Your task to perform on an android device: allow notifications from all sites in the chrome app Image 0: 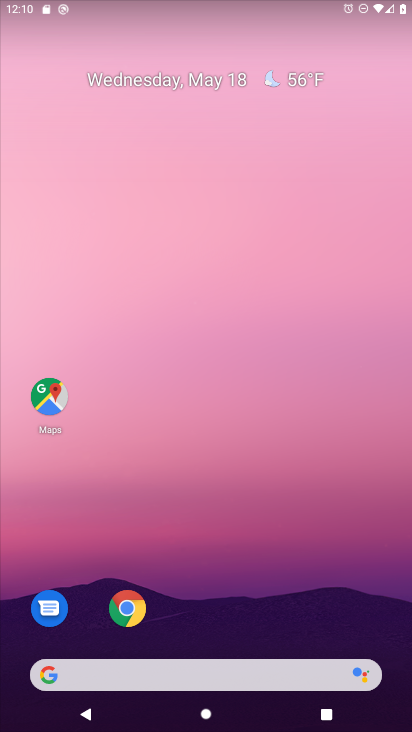
Step 0: drag from (242, 672) to (231, 257)
Your task to perform on an android device: allow notifications from all sites in the chrome app Image 1: 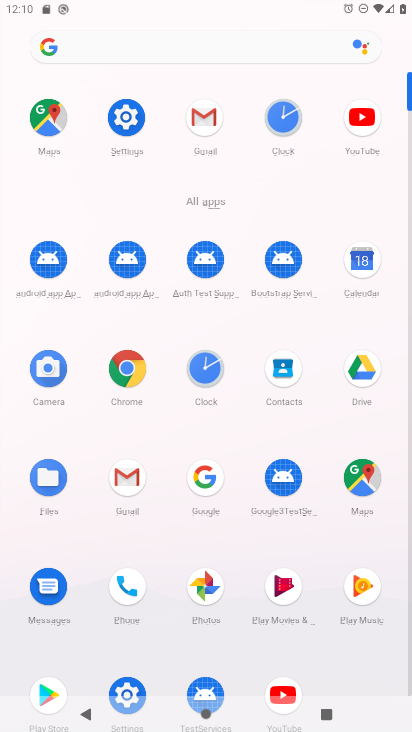
Step 1: click (123, 370)
Your task to perform on an android device: allow notifications from all sites in the chrome app Image 2: 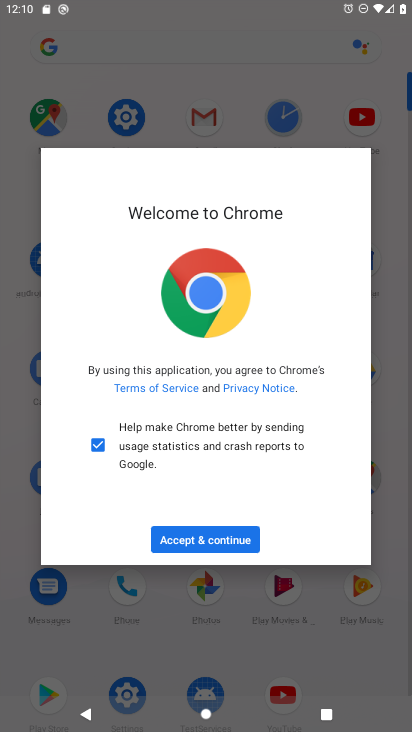
Step 2: click (193, 537)
Your task to perform on an android device: allow notifications from all sites in the chrome app Image 3: 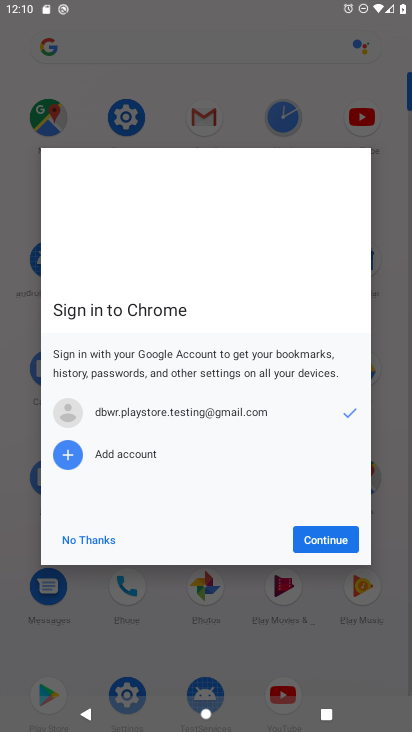
Step 3: click (317, 539)
Your task to perform on an android device: allow notifications from all sites in the chrome app Image 4: 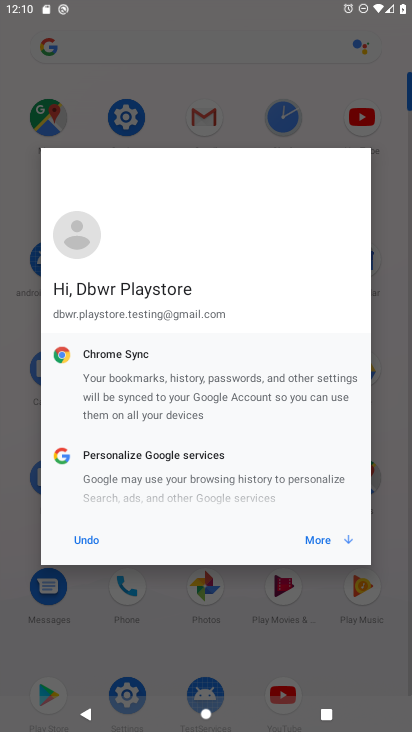
Step 4: click (332, 541)
Your task to perform on an android device: allow notifications from all sites in the chrome app Image 5: 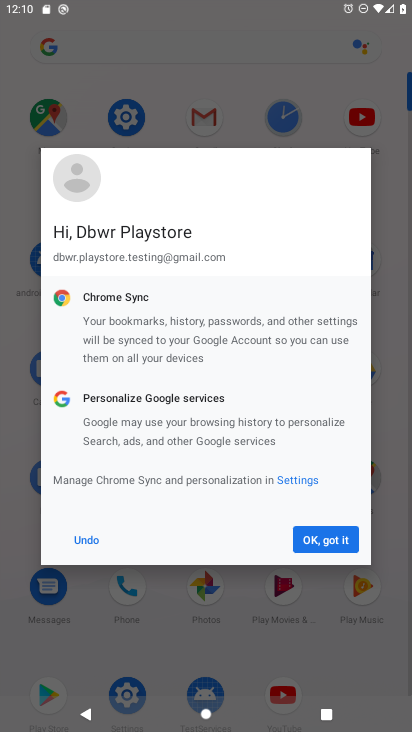
Step 5: click (330, 533)
Your task to perform on an android device: allow notifications from all sites in the chrome app Image 6: 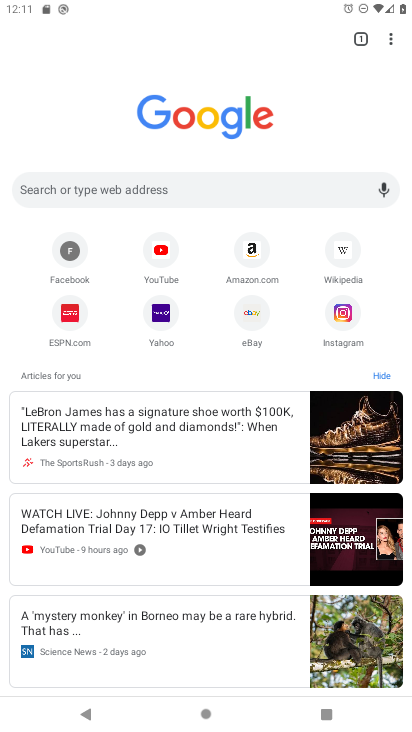
Step 6: click (388, 51)
Your task to perform on an android device: allow notifications from all sites in the chrome app Image 7: 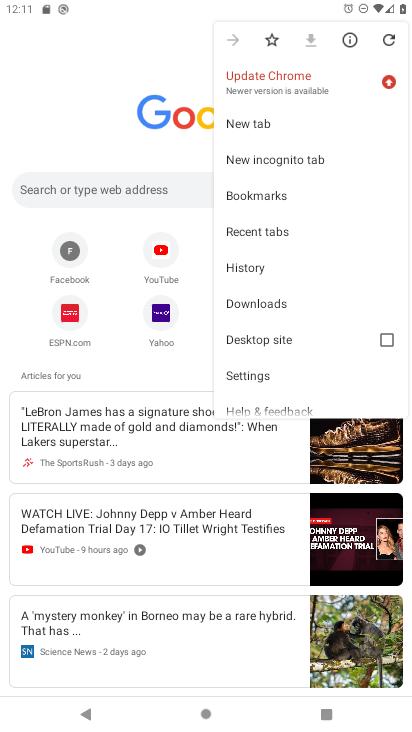
Step 7: click (252, 373)
Your task to perform on an android device: allow notifications from all sites in the chrome app Image 8: 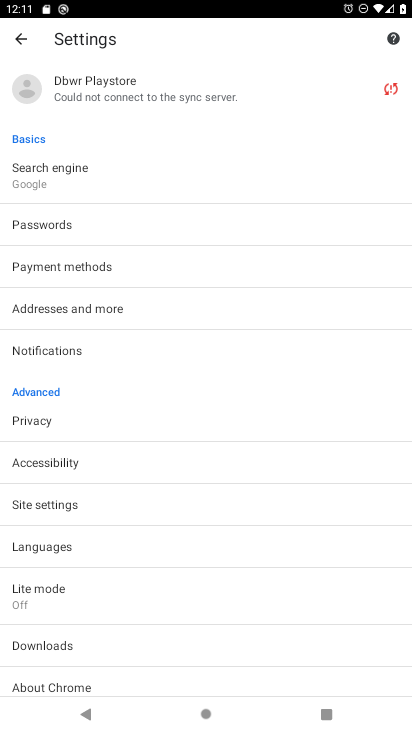
Step 8: click (56, 511)
Your task to perform on an android device: allow notifications from all sites in the chrome app Image 9: 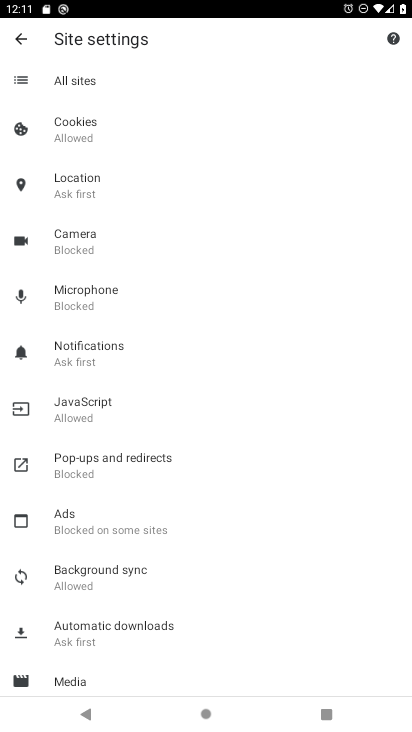
Step 9: click (62, 359)
Your task to perform on an android device: allow notifications from all sites in the chrome app Image 10: 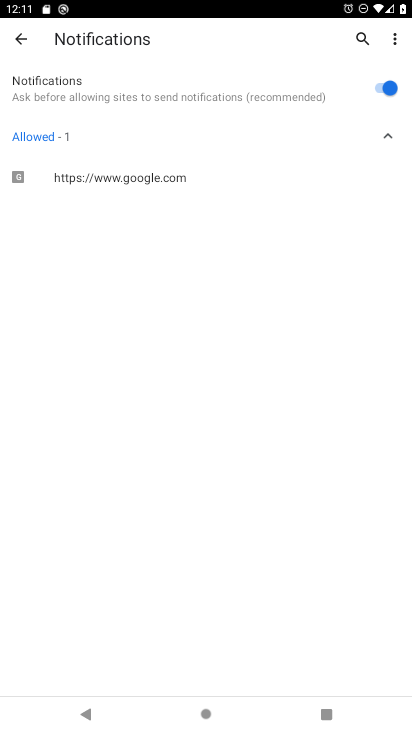
Step 10: click (383, 86)
Your task to perform on an android device: allow notifications from all sites in the chrome app Image 11: 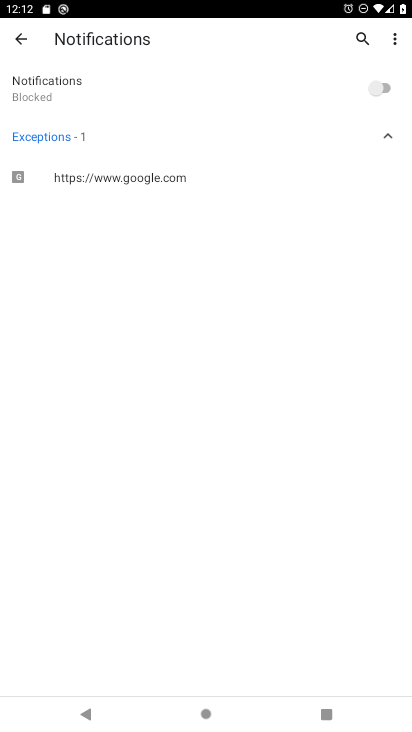
Step 11: click (383, 99)
Your task to perform on an android device: allow notifications from all sites in the chrome app Image 12: 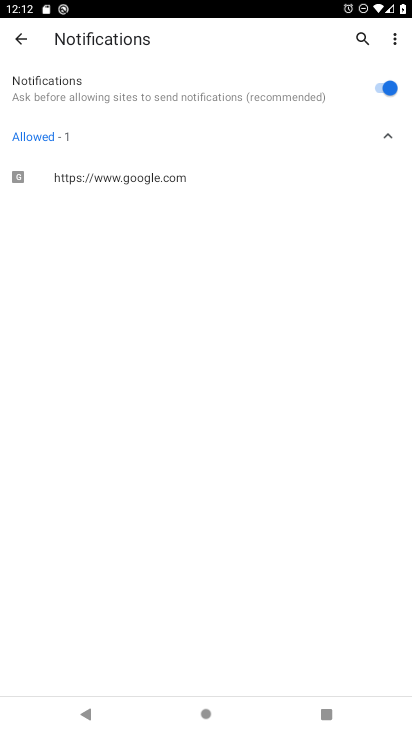
Step 12: task complete